Your task to perform on an android device: Open notification settings Image 0: 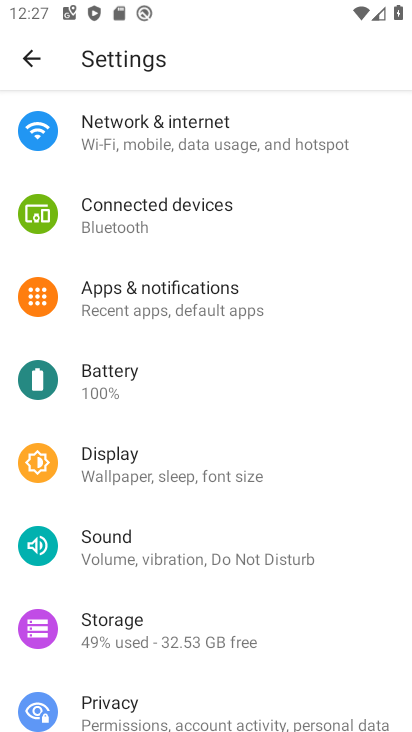
Step 0: click (164, 304)
Your task to perform on an android device: Open notification settings Image 1: 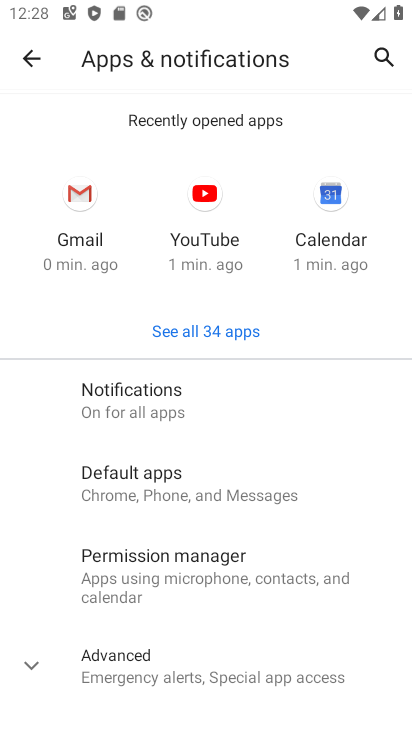
Step 1: task complete